Your task to perform on an android device: all mails in gmail Image 0: 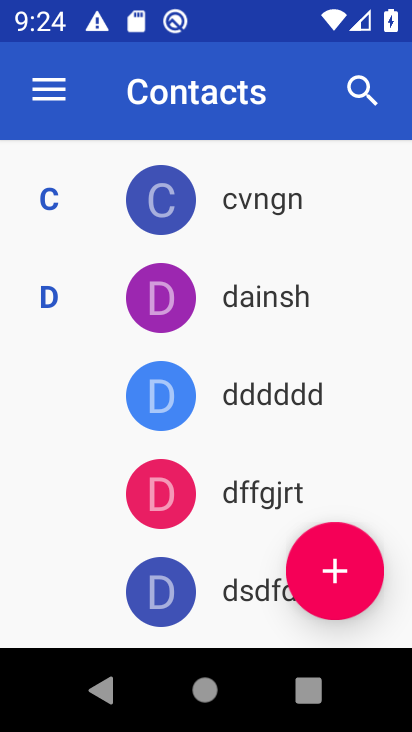
Step 0: press home button
Your task to perform on an android device: all mails in gmail Image 1: 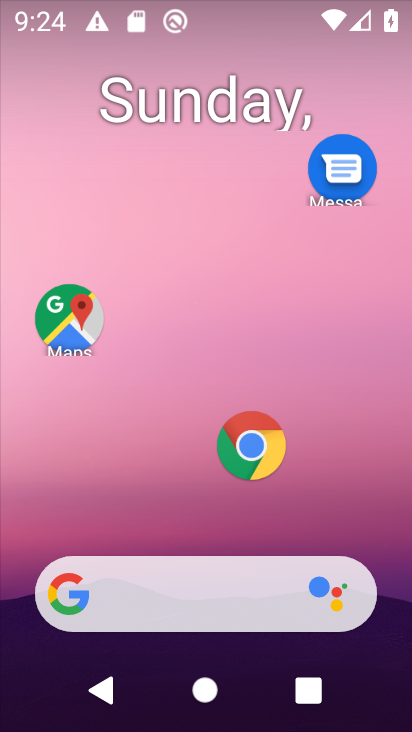
Step 1: drag from (163, 459) to (292, 63)
Your task to perform on an android device: all mails in gmail Image 2: 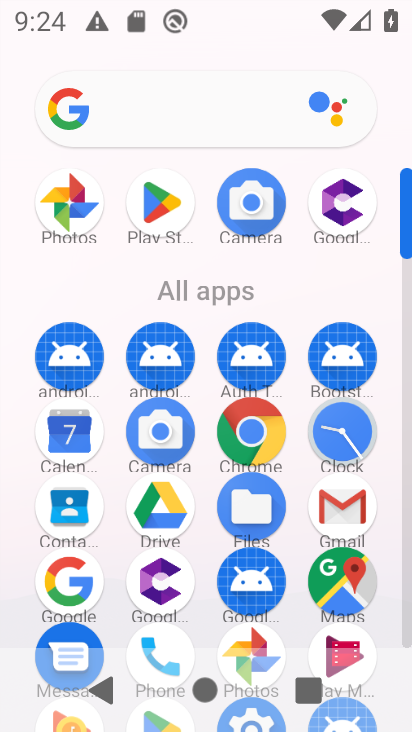
Step 2: click (344, 520)
Your task to perform on an android device: all mails in gmail Image 3: 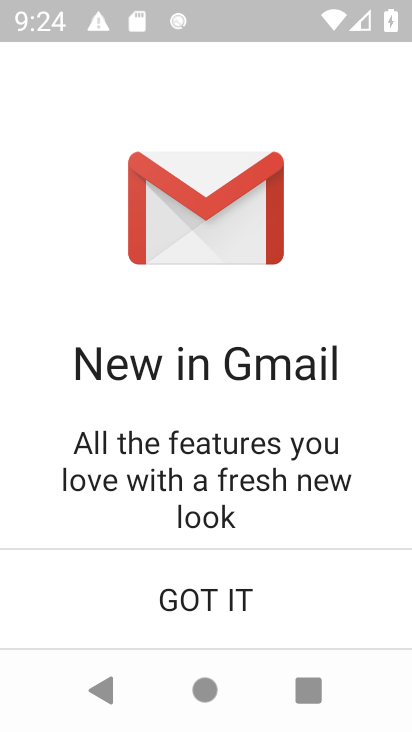
Step 3: click (200, 609)
Your task to perform on an android device: all mails in gmail Image 4: 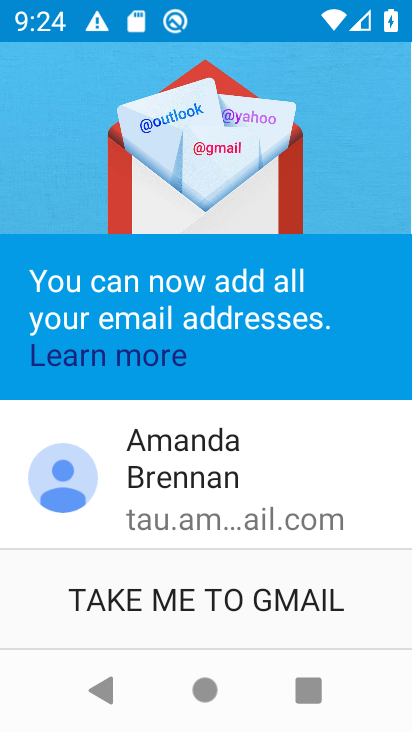
Step 4: click (211, 606)
Your task to perform on an android device: all mails in gmail Image 5: 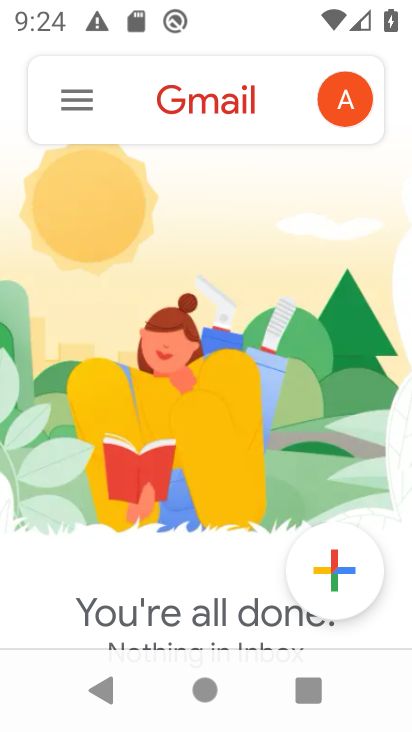
Step 5: task complete